Your task to perform on an android device: Do I have any events this weekend? Image 0: 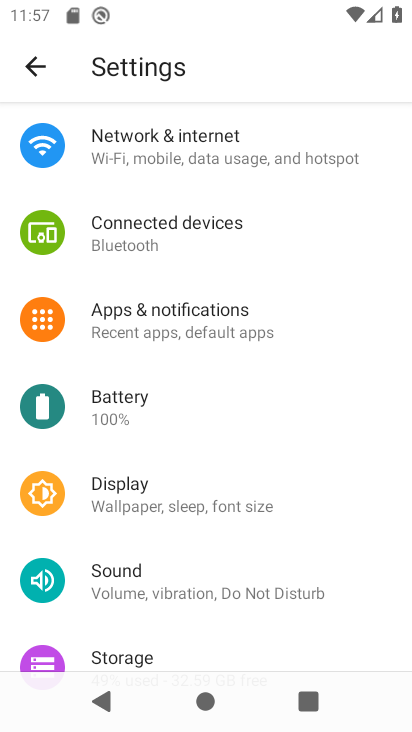
Step 0: press home button
Your task to perform on an android device: Do I have any events this weekend? Image 1: 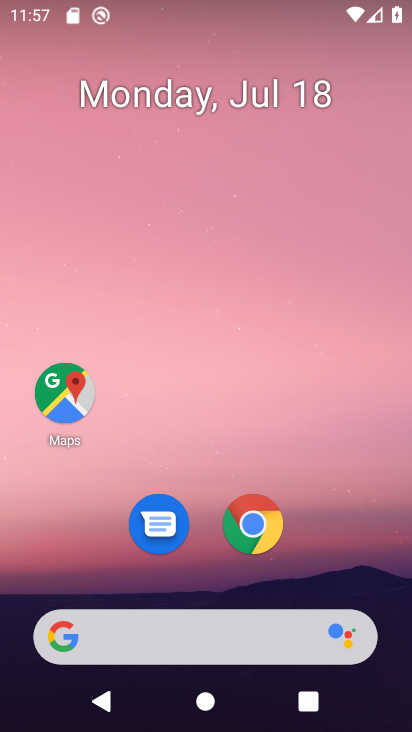
Step 1: drag from (322, 500) to (314, 64)
Your task to perform on an android device: Do I have any events this weekend? Image 2: 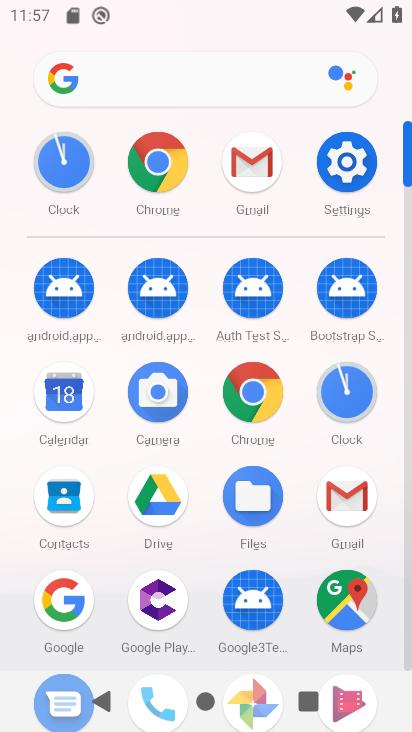
Step 2: click (72, 391)
Your task to perform on an android device: Do I have any events this weekend? Image 3: 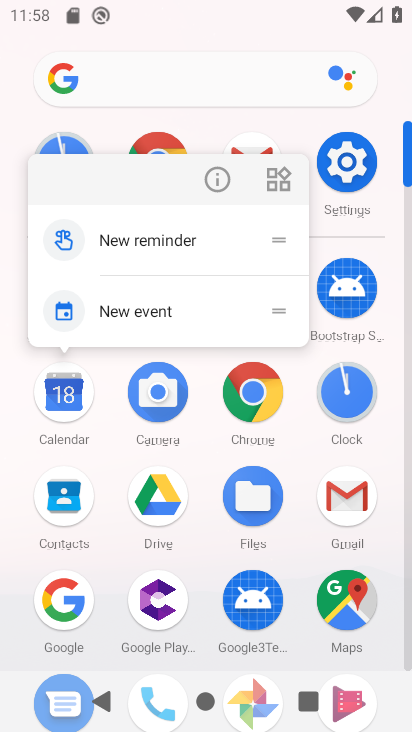
Step 3: click (75, 403)
Your task to perform on an android device: Do I have any events this weekend? Image 4: 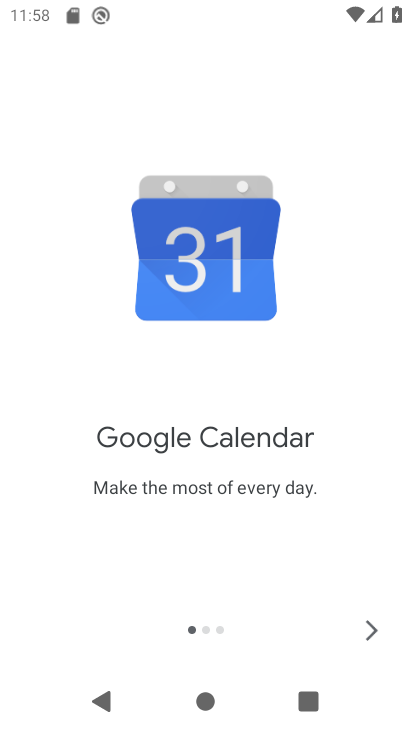
Step 4: click (370, 625)
Your task to perform on an android device: Do I have any events this weekend? Image 5: 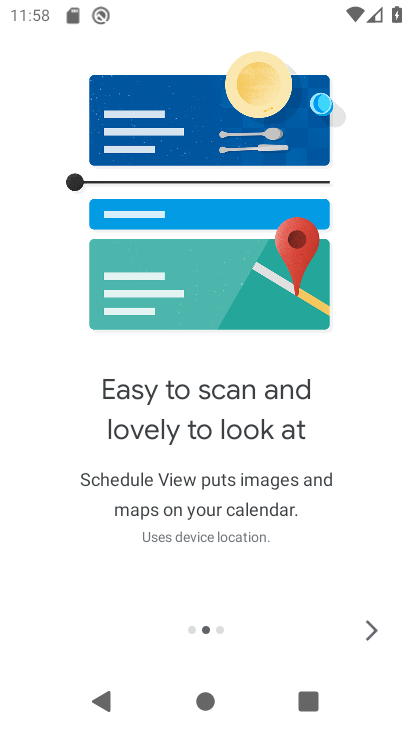
Step 5: click (370, 625)
Your task to perform on an android device: Do I have any events this weekend? Image 6: 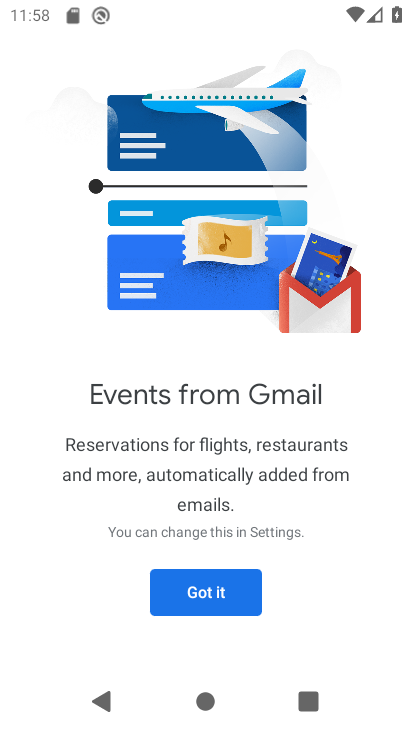
Step 6: click (239, 586)
Your task to perform on an android device: Do I have any events this weekend? Image 7: 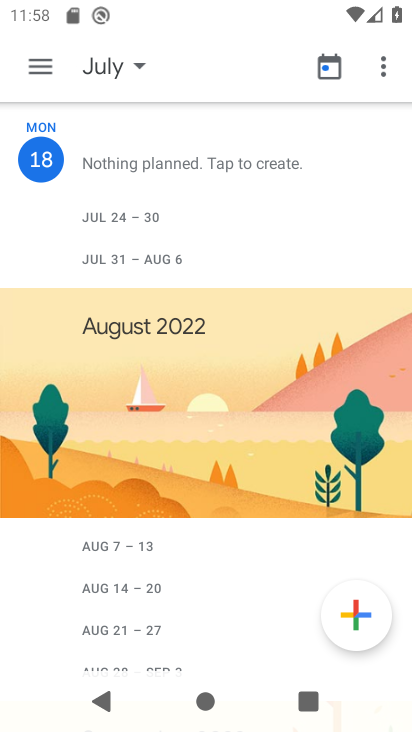
Step 7: click (43, 64)
Your task to perform on an android device: Do I have any events this weekend? Image 8: 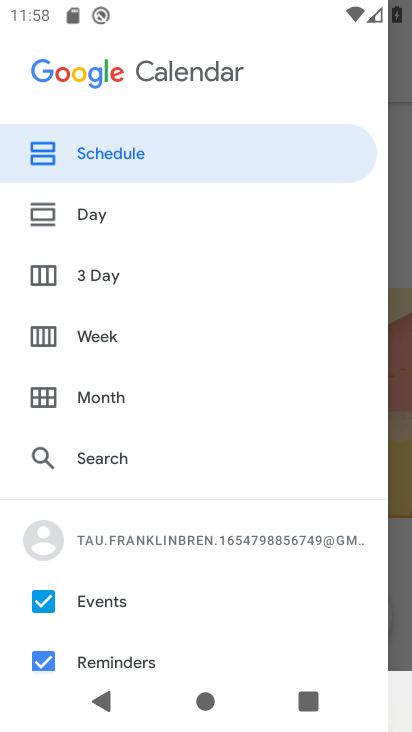
Step 8: click (68, 333)
Your task to perform on an android device: Do I have any events this weekend? Image 9: 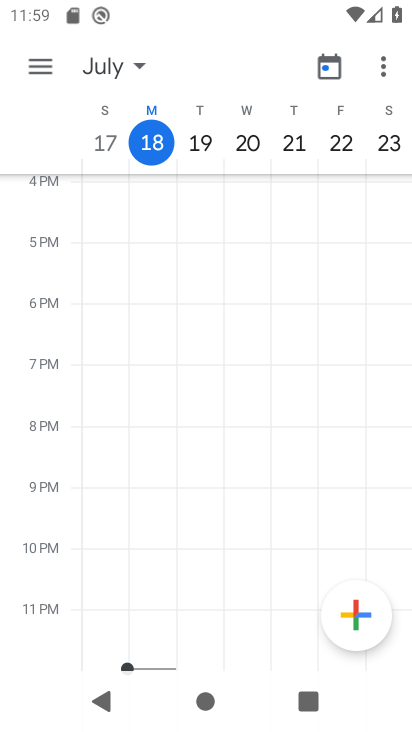
Step 9: click (384, 132)
Your task to perform on an android device: Do I have any events this weekend? Image 10: 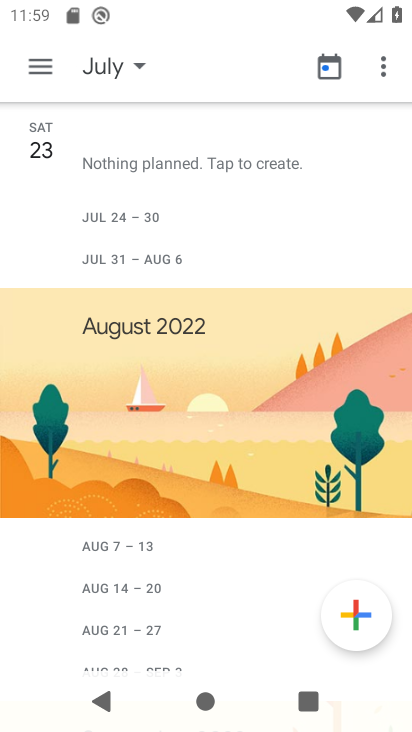
Step 10: task complete